Your task to perform on an android device: Search for the best rated desk chair on Article.com Image 0: 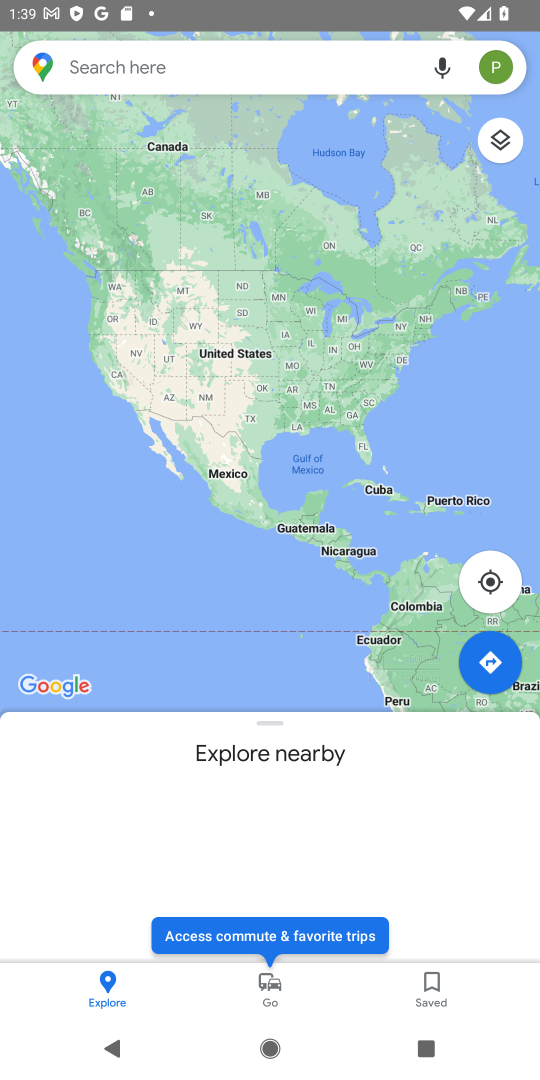
Step 0: press home button
Your task to perform on an android device: Search for the best rated desk chair on Article.com Image 1: 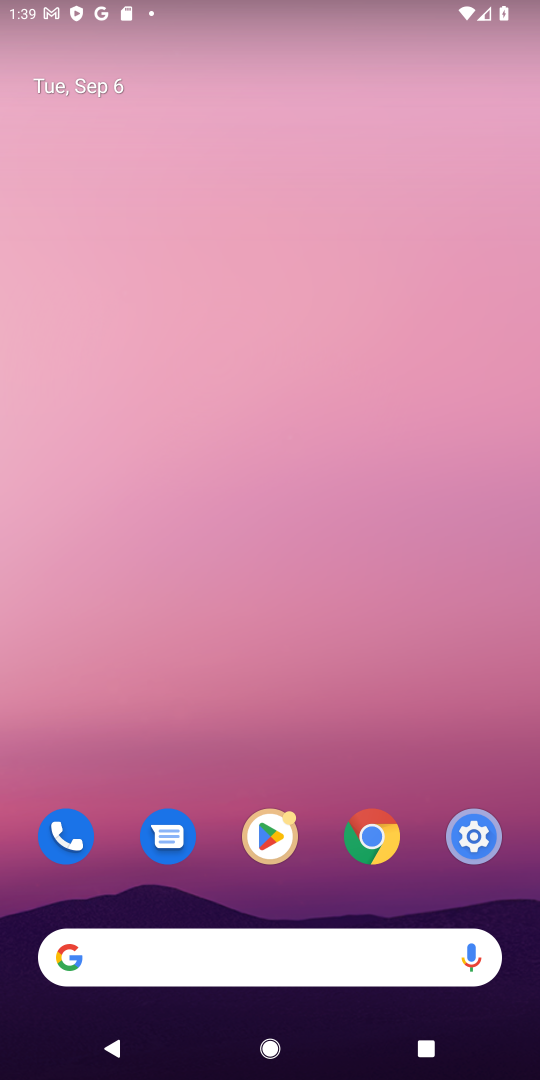
Step 1: click (237, 948)
Your task to perform on an android device: Search for the best rated desk chair on Article.com Image 2: 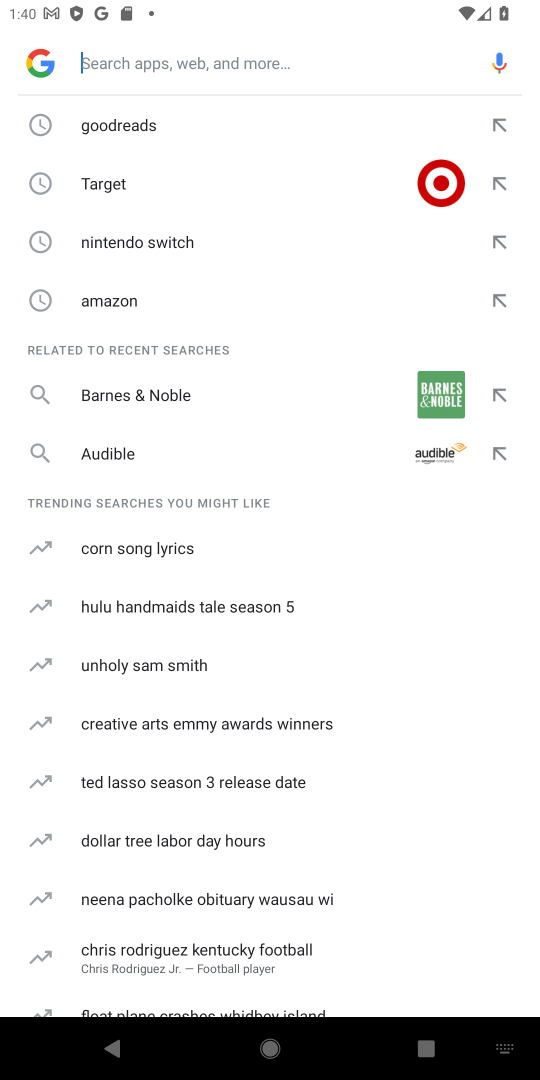
Step 2: type "article.com"
Your task to perform on an android device: Search for the best rated desk chair on Article.com Image 3: 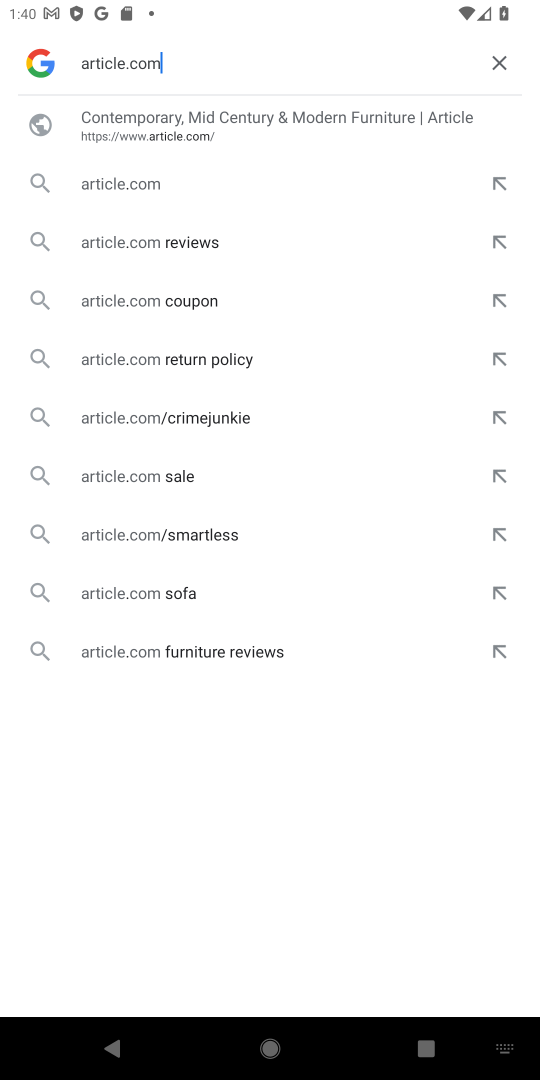
Step 3: click (45, 186)
Your task to perform on an android device: Search for the best rated desk chair on Article.com Image 4: 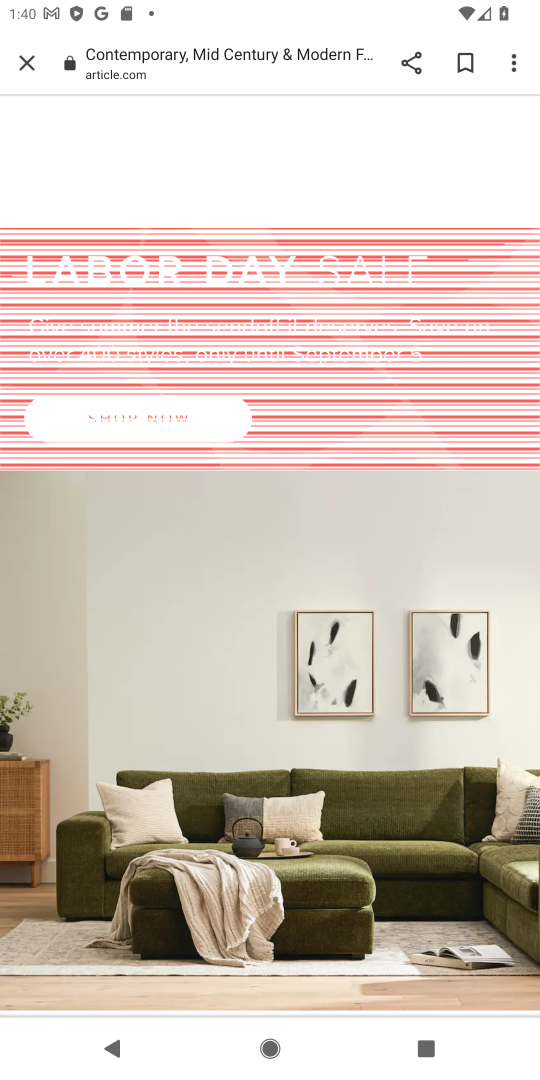
Step 4: click (179, 173)
Your task to perform on an android device: Search for the best rated desk chair on Article.com Image 5: 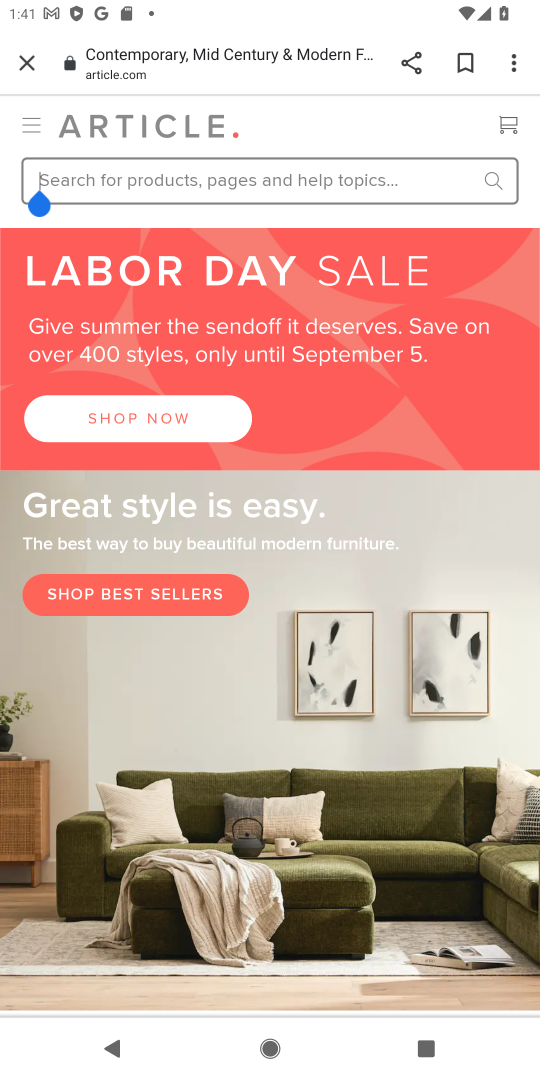
Step 5: type "best rated desk chair"
Your task to perform on an android device: Search for the best rated desk chair on Article.com Image 6: 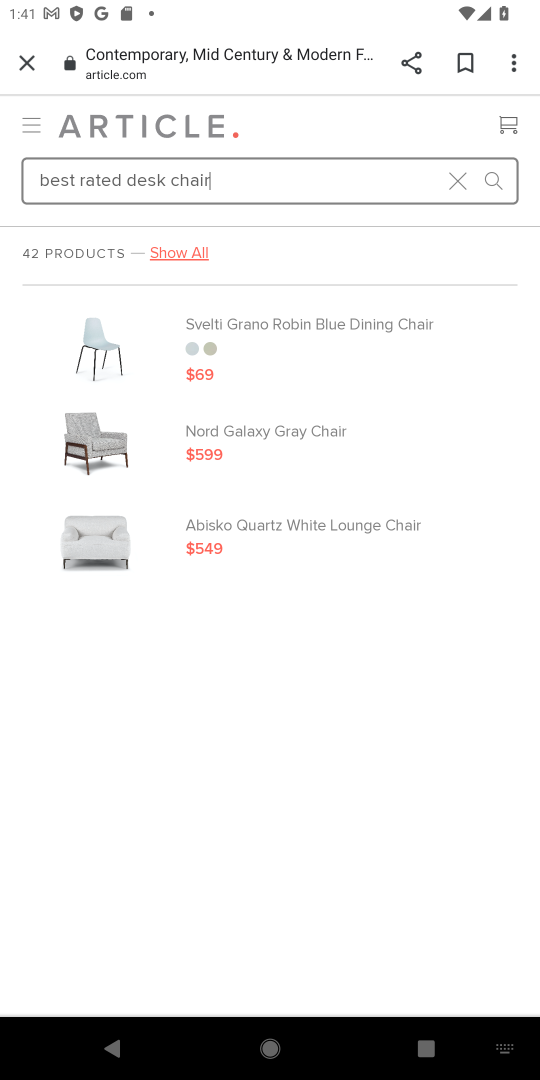
Step 6: task complete